Your task to perform on an android device: Open Maps and search for coffee Image 0: 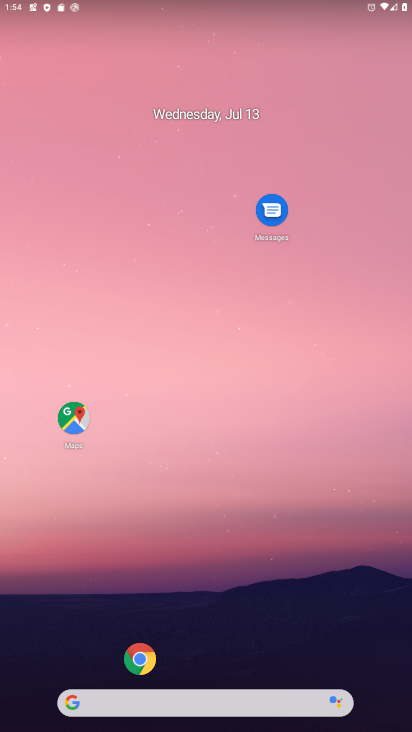
Step 0: click (70, 418)
Your task to perform on an android device: Open Maps and search for coffee Image 1: 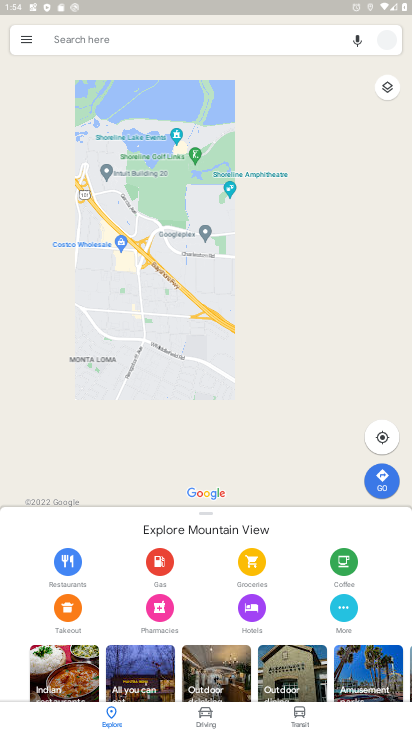
Step 1: click (69, 19)
Your task to perform on an android device: Open Maps and search for coffee Image 2: 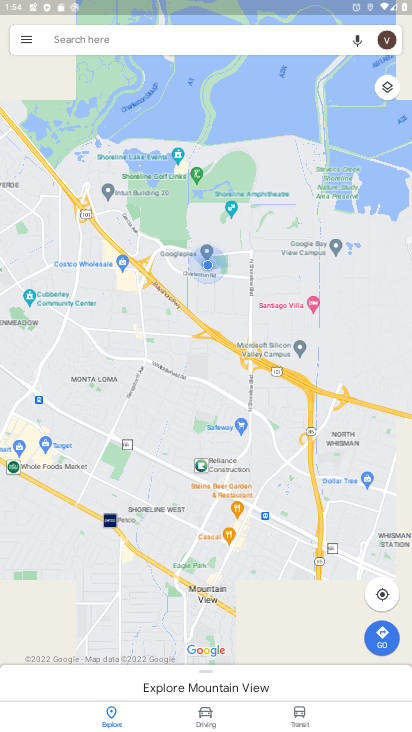
Step 2: click (58, 34)
Your task to perform on an android device: Open Maps and search for coffee Image 3: 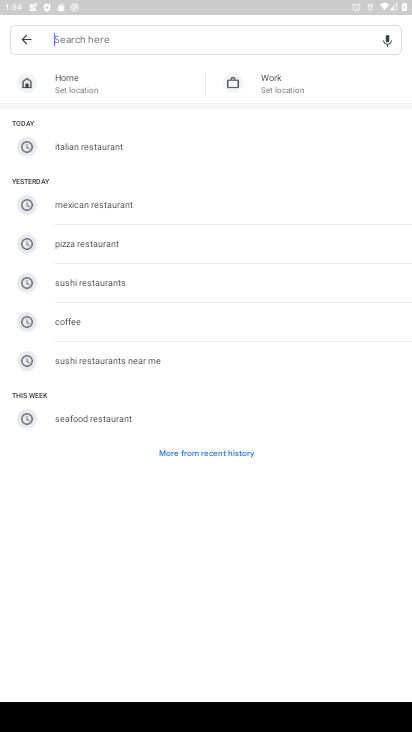
Step 3: click (57, 315)
Your task to perform on an android device: Open Maps and search for coffee Image 4: 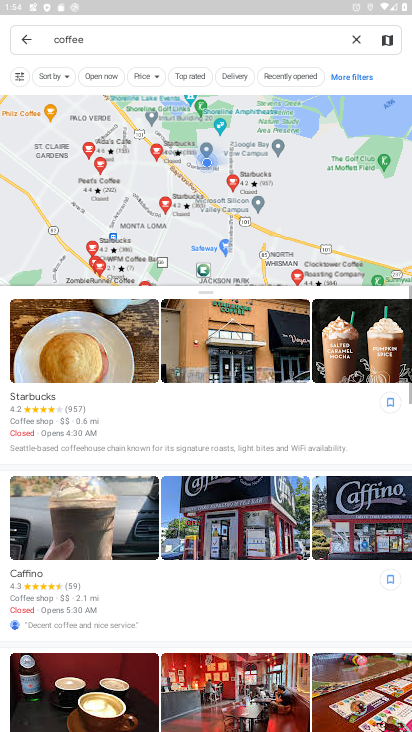
Step 4: task complete